Your task to perform on an android device: Search for sushi restaurants on Maps Image 0: 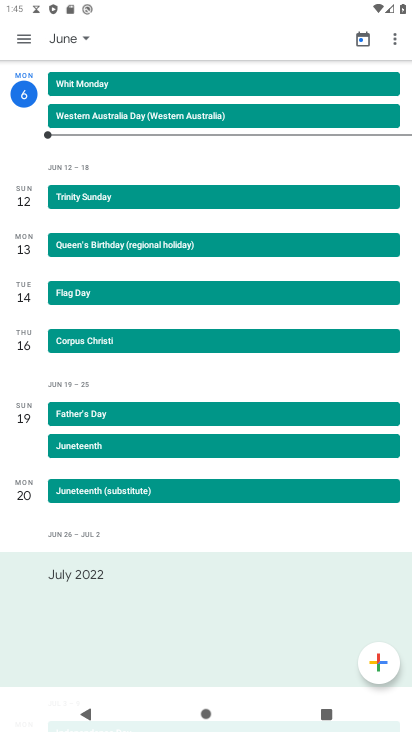
Step 0: press home button
Your task to perform on an android device: Search for sushi restaurants on Maps Image 1: 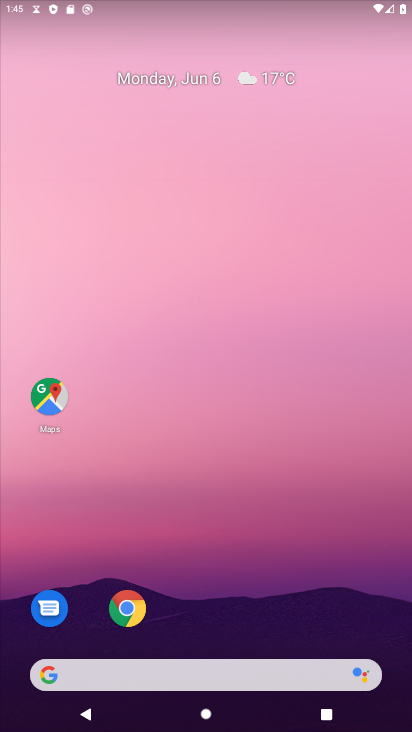
Step 1: drag from (253, 562) to (343, 132)
Your task to perform on an android device: Search for sushi restaurants on Maps Image 2: 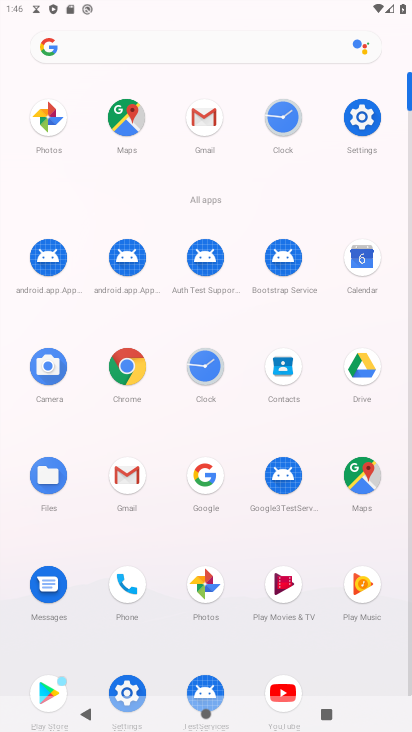
Step 2: click (126, 116)
Your task to perform on an android device: Search for sushi restaurants on Maps Image 3: 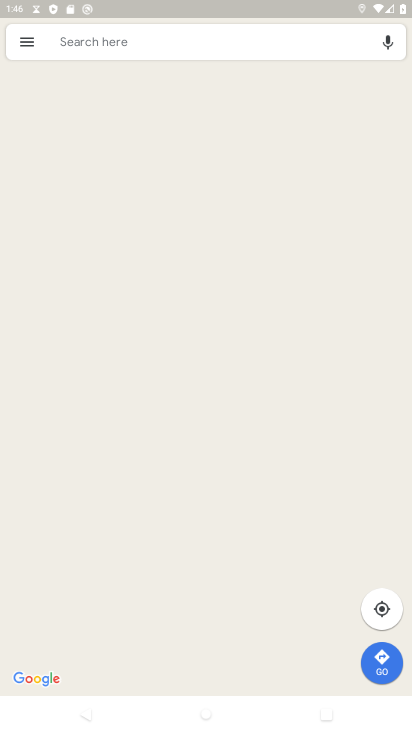
Step 3: click (147, 41)
Your task to perform on an android device: Search for sushi restaurants on Maps Image 4: 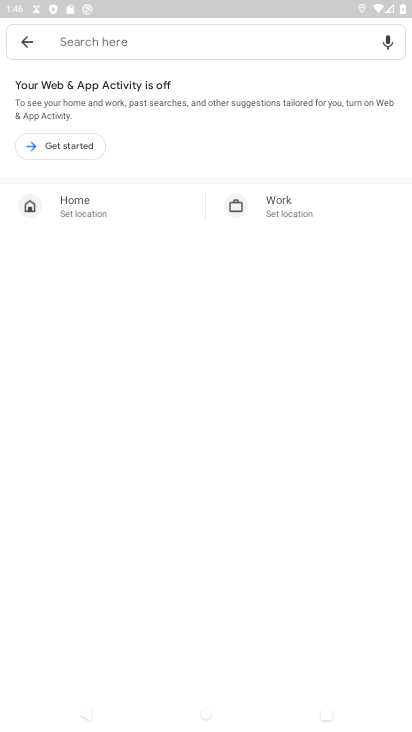
Step 4: click (188, 37)
Your task to perform on an android device: Search for sushi restaurants on Maps Image 5: 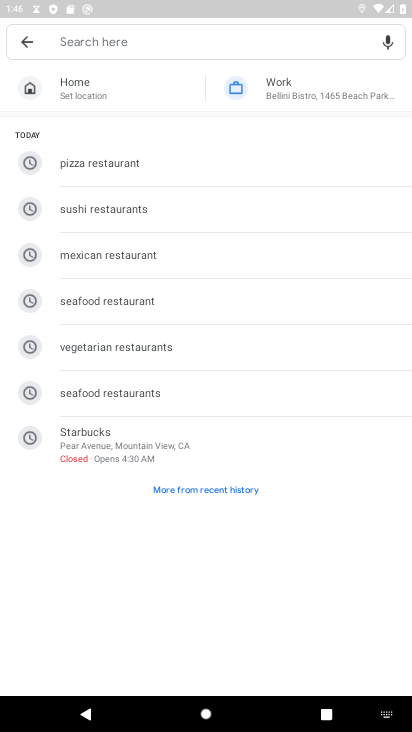
Step 5: type "sushi resturents"
Your task to perform on an android device: Search for sushi restaurants on Maps Image 6: 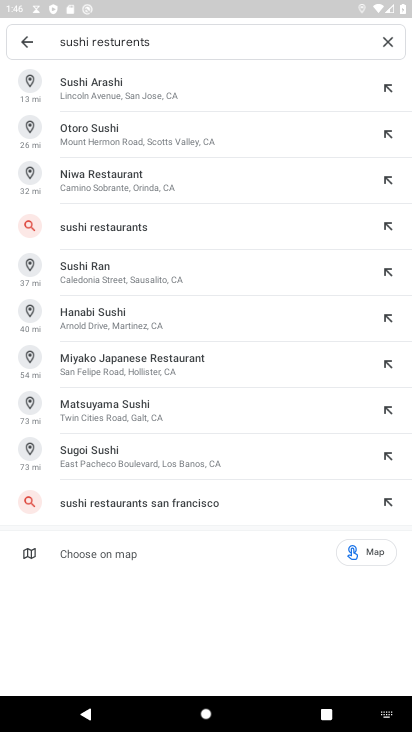
Step 6: click (111, 216)
Your task to perform on an android device: Search for sushi restaurants on Maps Image 7: 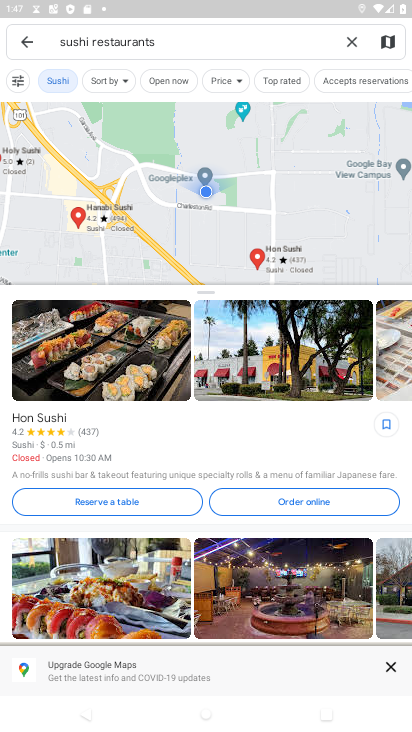
Step 7: task complete